Your task to perform on an android device: toggle javascript in the chrome app Image 0: 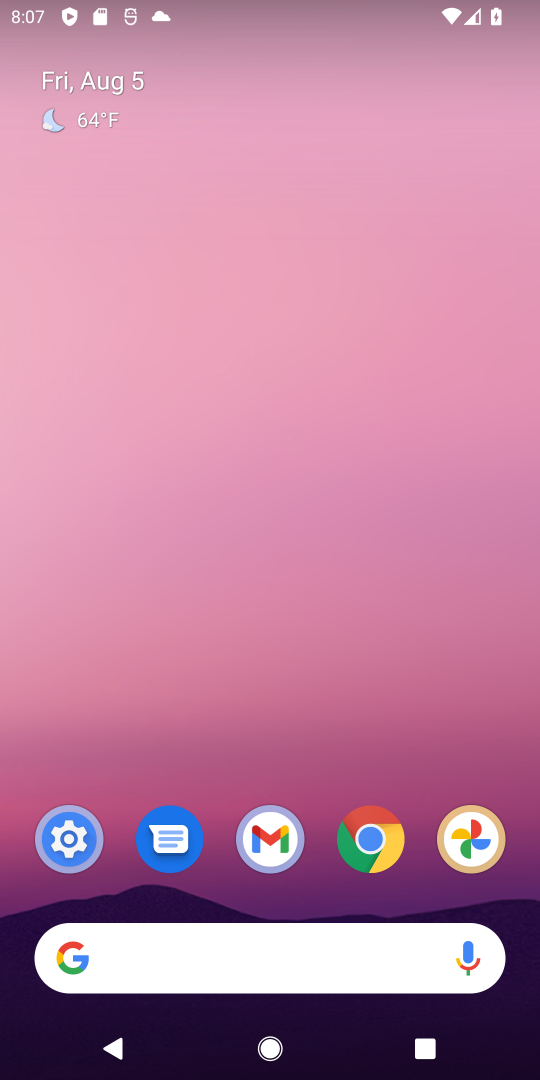
Step 0: click (364, 838)
Your task to perform on an android device: toggle javascript in the chrome app Image 1: 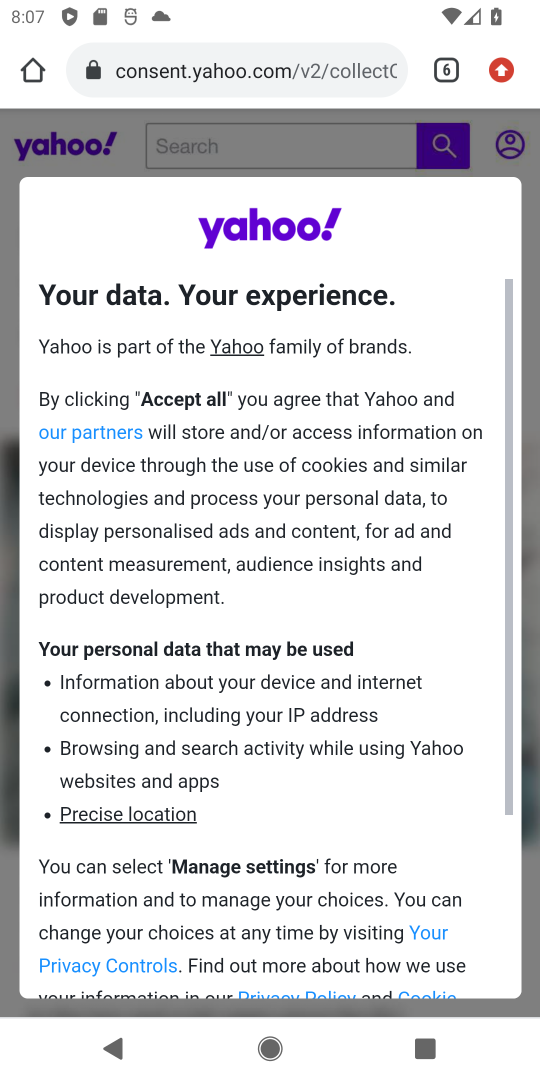
Step 1: click (505, 75)
Your task to perform on an android device: toggle javascript in the chrome app Image 2: 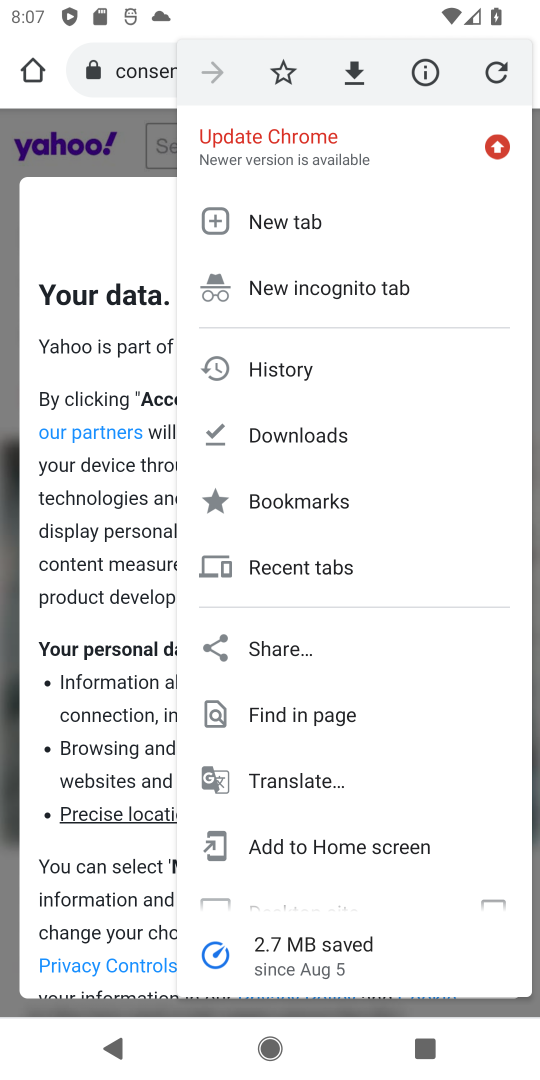
Step 2: drag from (318, 834) to (317, 400)
Your task to perform on an android device: toggle javascript in the chrome app Image 3: 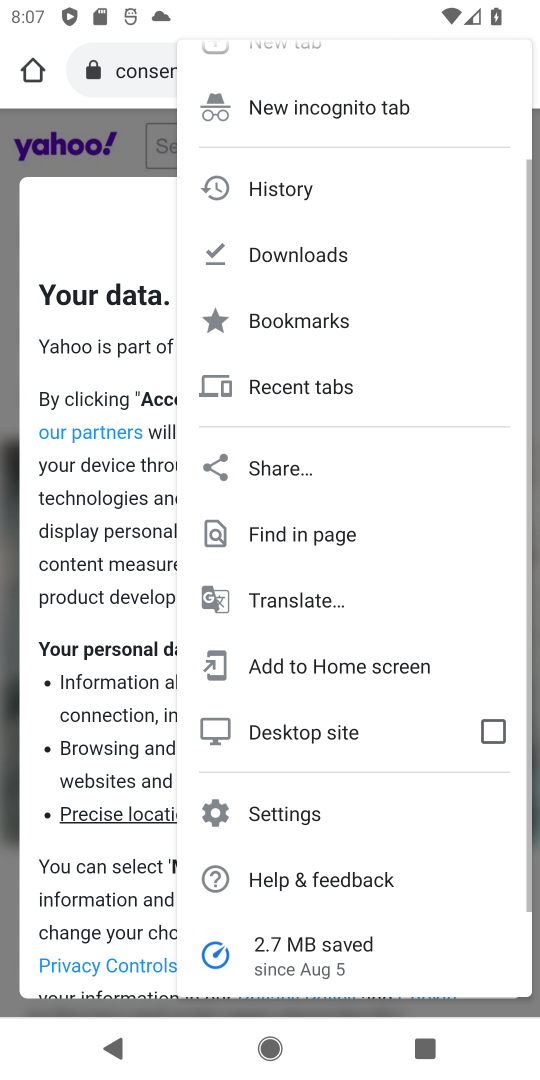
Step 3: click (296, 813)
Your task to perform on an android device: toggle javascript in the chrome app Image 4: 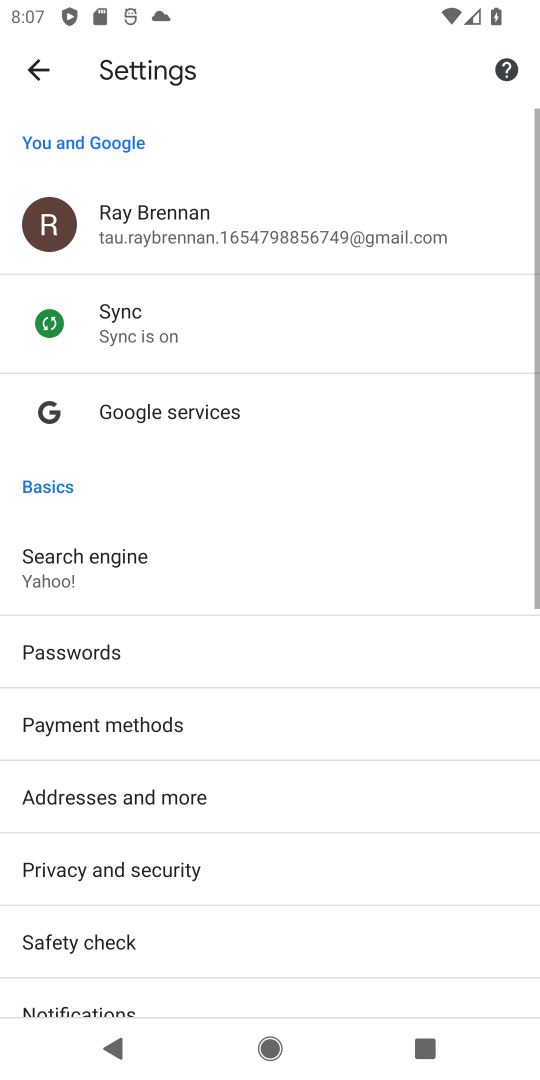
Step 4: drag from (156, 876) to (155, 411)
Your task to perform on an android device: toggle javascript in the chrome app Image 5: 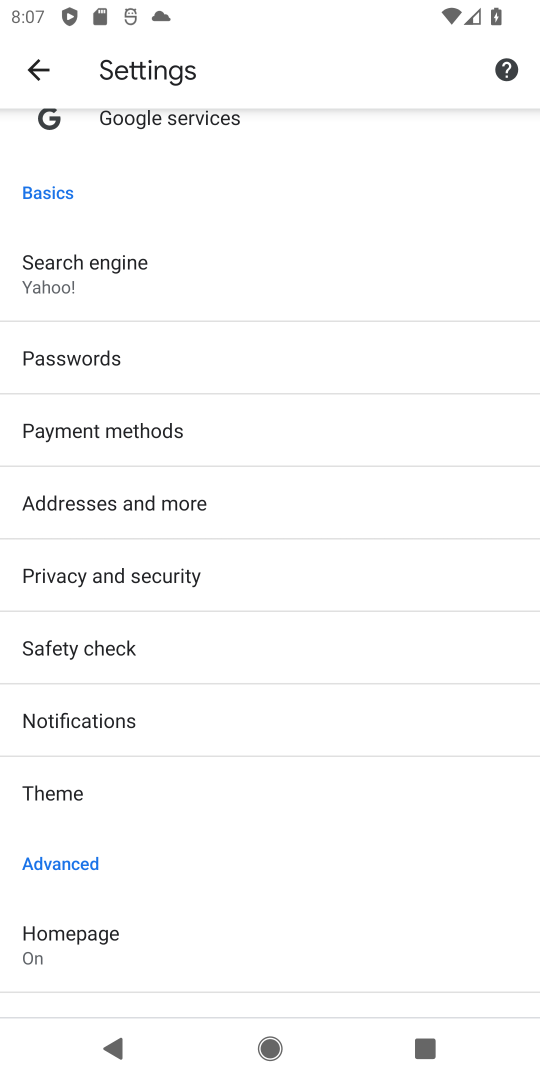
Step 5: drag from (111, 891) to (124, 473)
Your task to perform on an android device: toggle javascript in the chrome app Image 6: 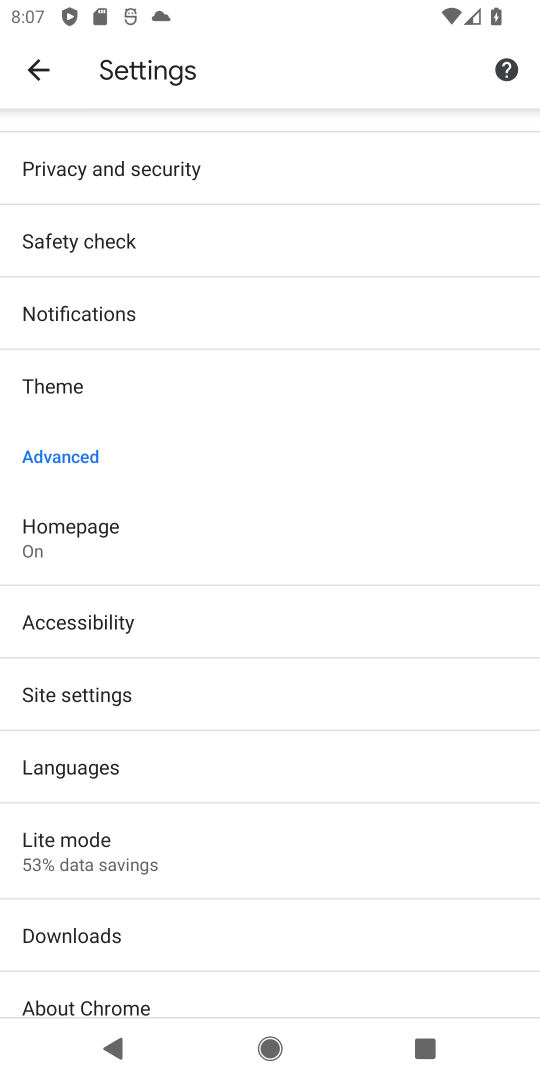
Step 6: click (88, 698)
Your task to perform on an android device: toggle javascript in the chrome app Image 7: 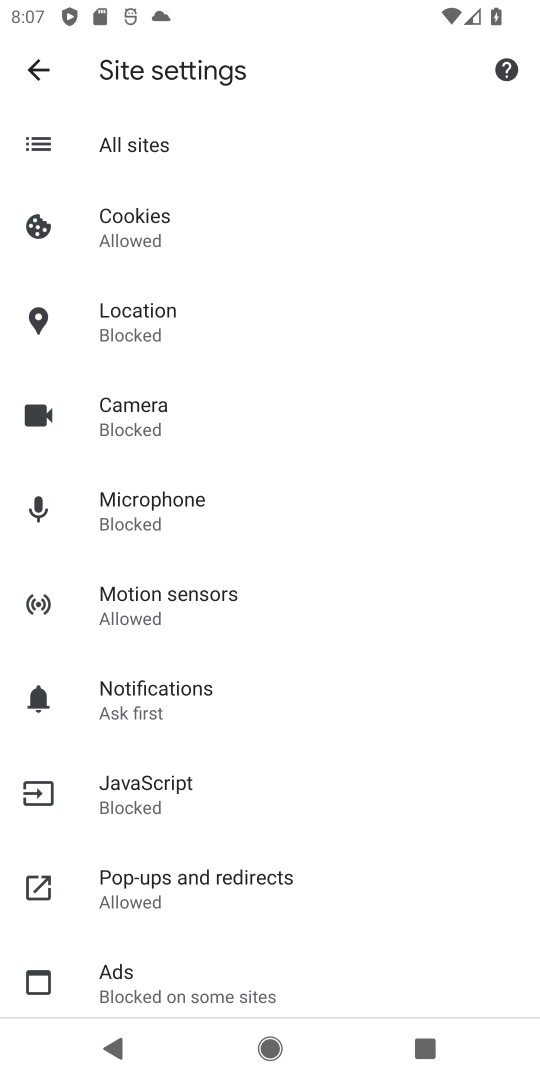
Step 7: click (138, 790)
Your task to perform on an android device: toggle javascript in the chrome app Image 8: 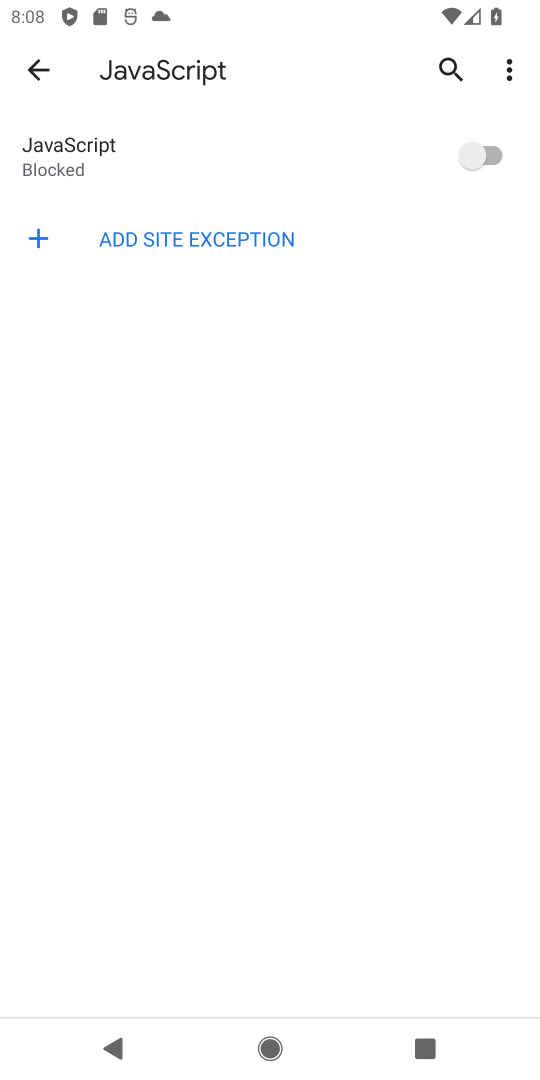
Step 8: click (483, 160)
Your task to perform on an android device: toggle javascript in the chrome app Image 9: 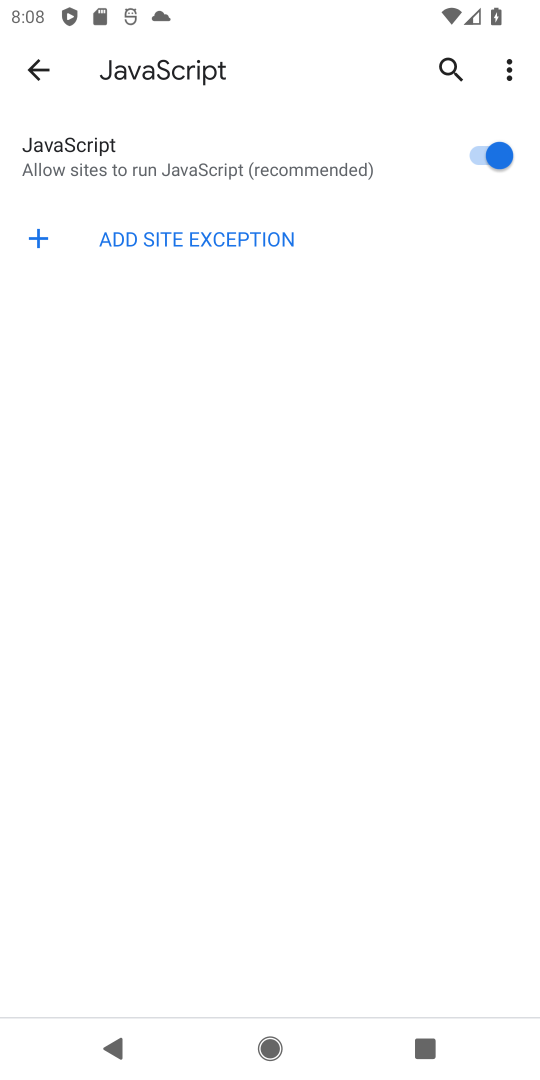
Step 9: task complete